Your task to perform on an android device: Go to Google maps Image 0: 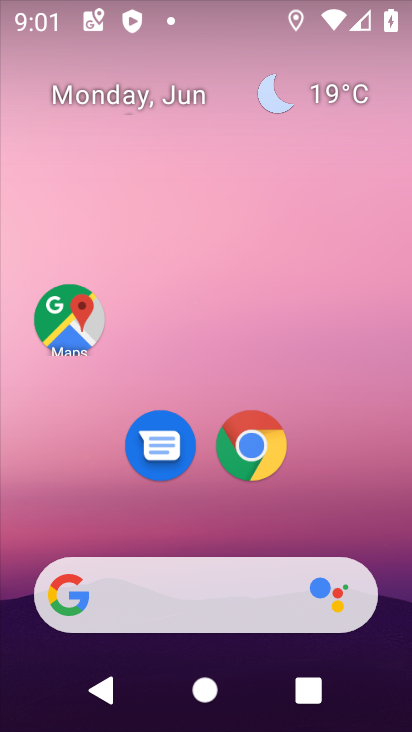
Step 0: click (71, 315)
Your task to perform on an android device: Go to Google maps Image 1: 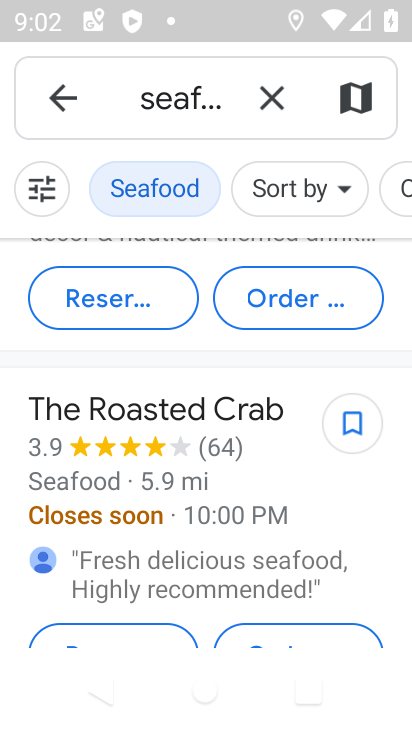
Step 1: click (261, 99)
Your task to perform on an android device: Go to Google maps Image 2: 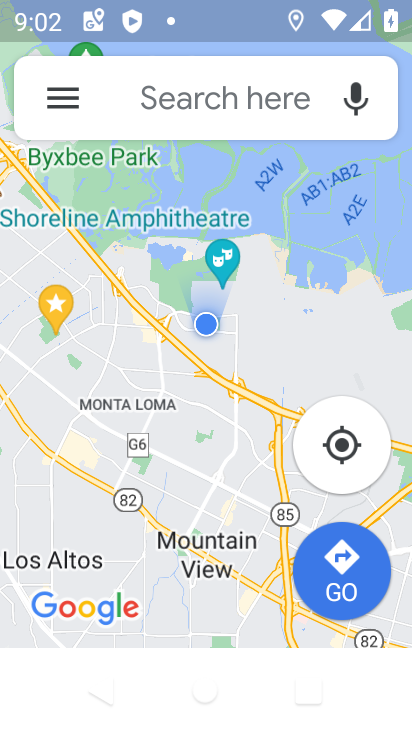
Step 2: click (200, 472)
Your task to perform on an android device: Go to Google maps Image 3: 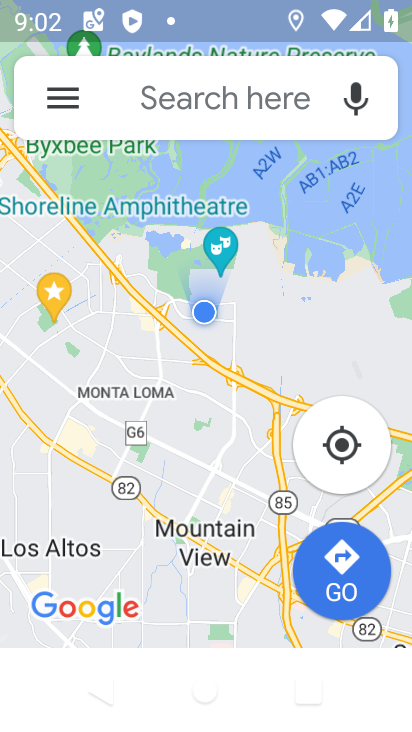
Step 3: task complete